Your task to perform on an android device: Go to accessibility settings Image 0: 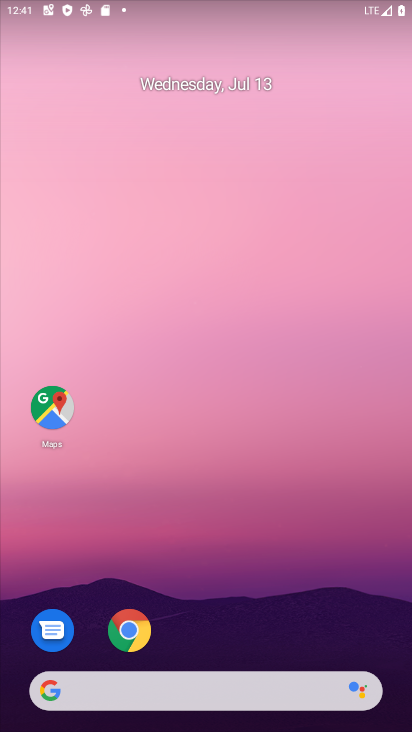
Step 0: drag from (390, 652) to (185, 26)
Your task to perform on an android device: Go to accessibility settings Image 1: 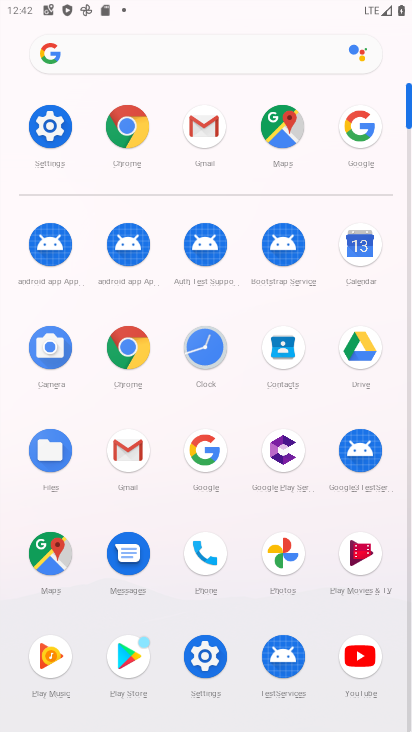
Step 1: click (187, 677)
Your task to perform on an android device: Go to accessibility settings Image 2: 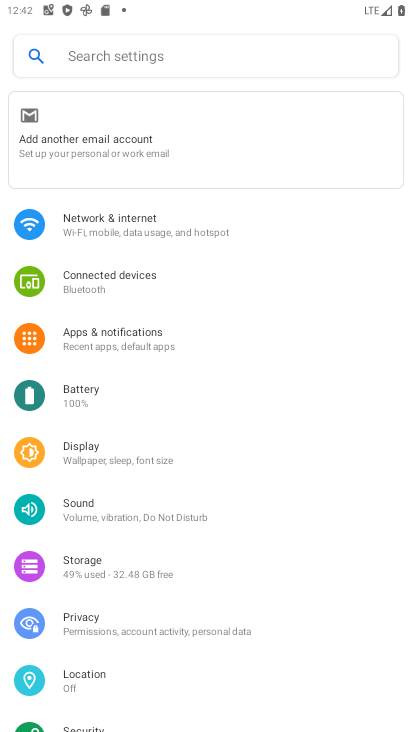
Step 2: drag from (166, 647) to (223, 128)
Your task to perform on an android device: Go to accessibility settings Image 3: 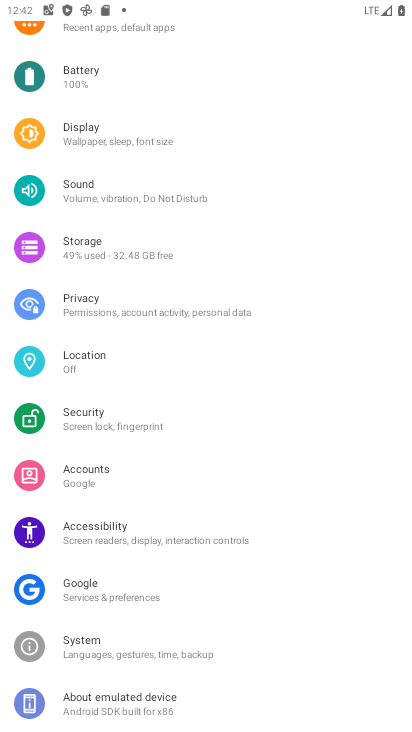
Step 3: click (115, 532)
Your task to perform on an android device: Go to accessibility settings Image 4: 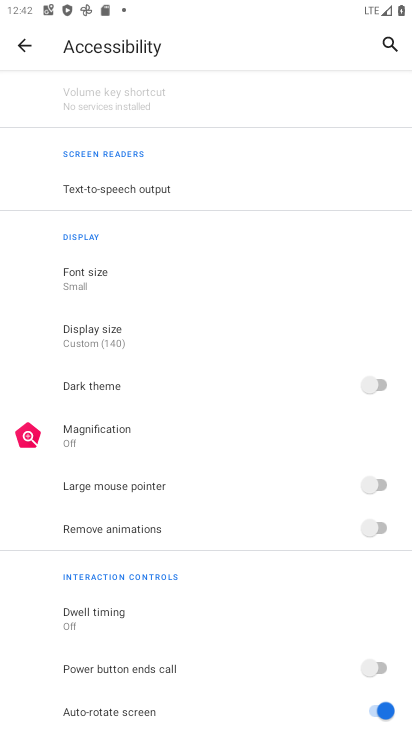
Step 4: task complete